Your task to perform on an android device: uninstall "Pluto TV - Live TV and Movies" Image 0: 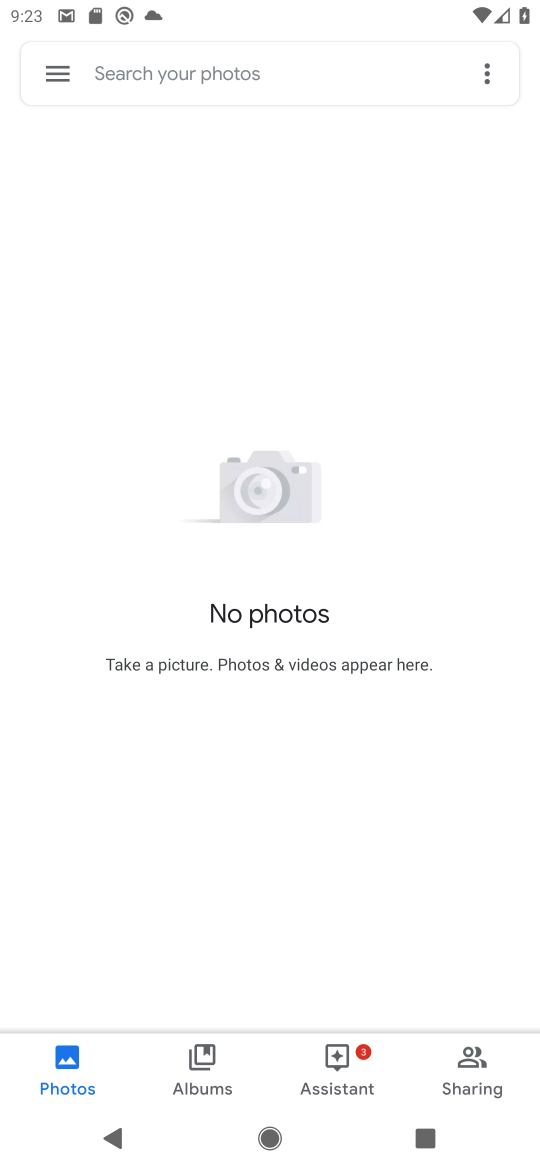
Step 0: press home button
Your task to perform on an android device: uninstall "Pluto TV - Live TV and Movies" Image 1: 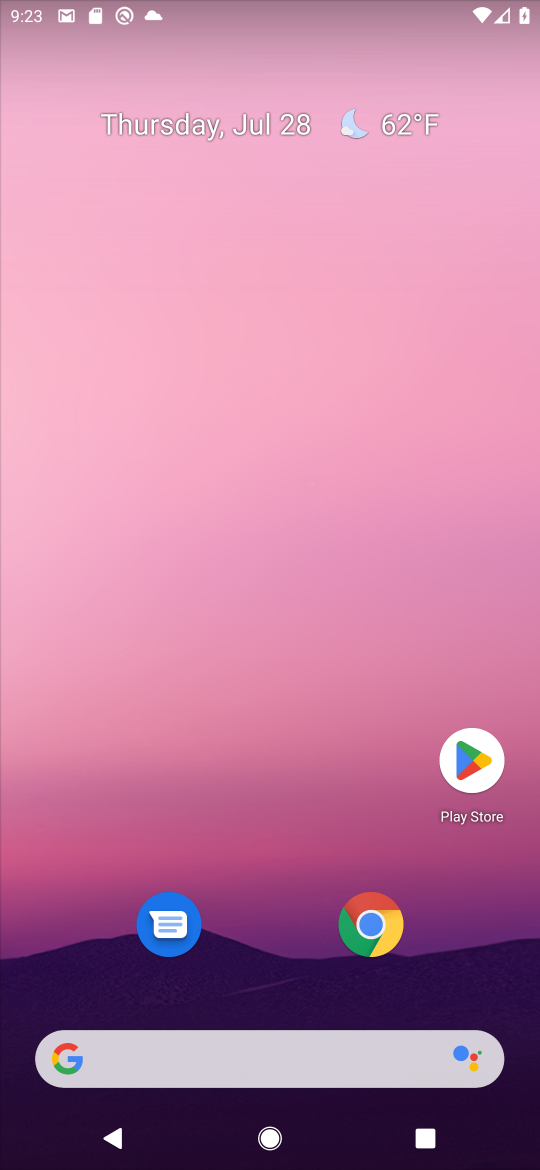
Step 1: click (474, 757)
Your task to perform on an android device: uninstall "Pluto TV - Live TV and Movies" Image 2: 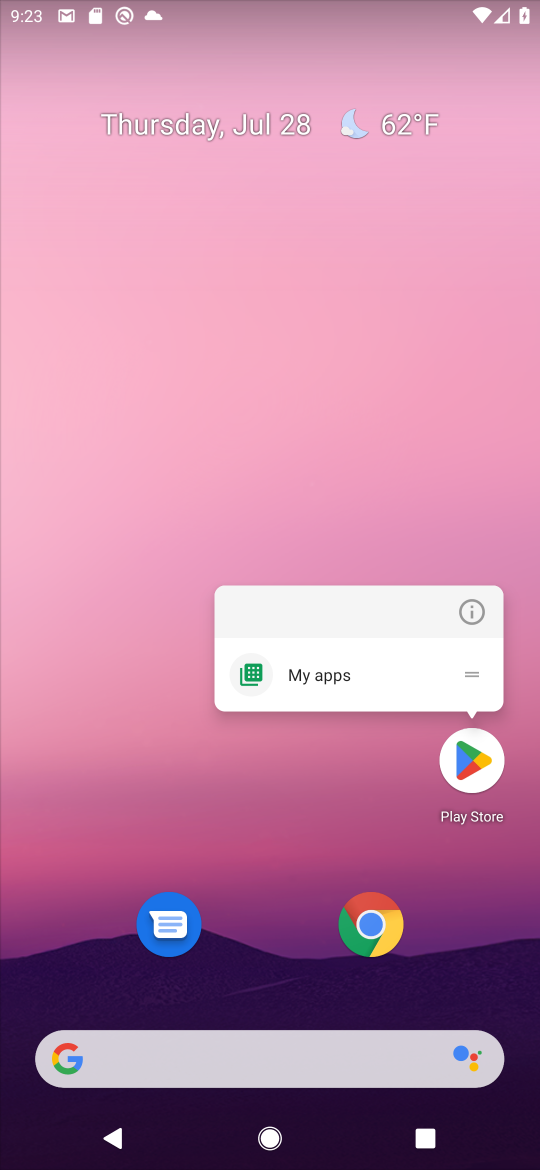
Step 2: click (474, 754)
Your task to perform on an android device: uninstall "Pluto TV - Live TV and Movies" Image 3: 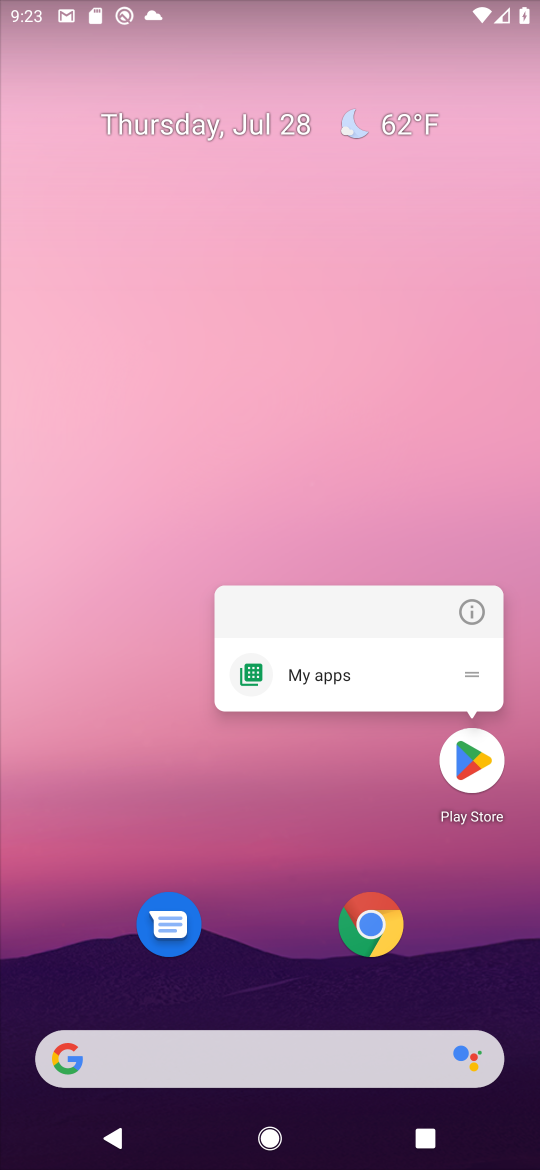
Step 3: click (474, 758)
Your task to perform on an android device: uninstall "Pluto TV - Live TV and Movies" Image 4: 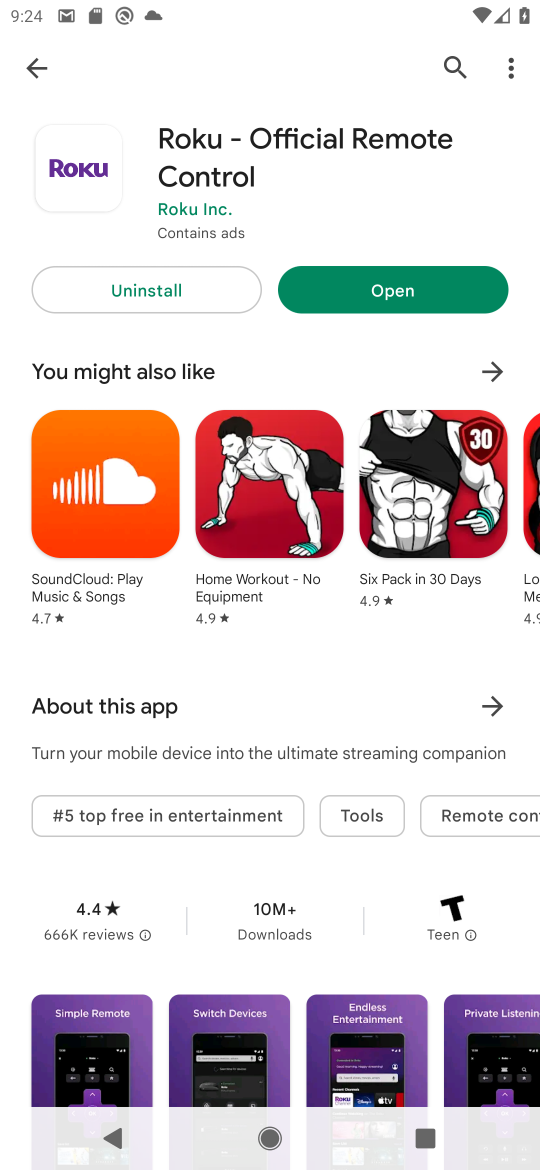
Step 4: click (452, 60)
Your task to perform on an android device: uninstall "Pluto TV - Live TV and Movies" Image 5: 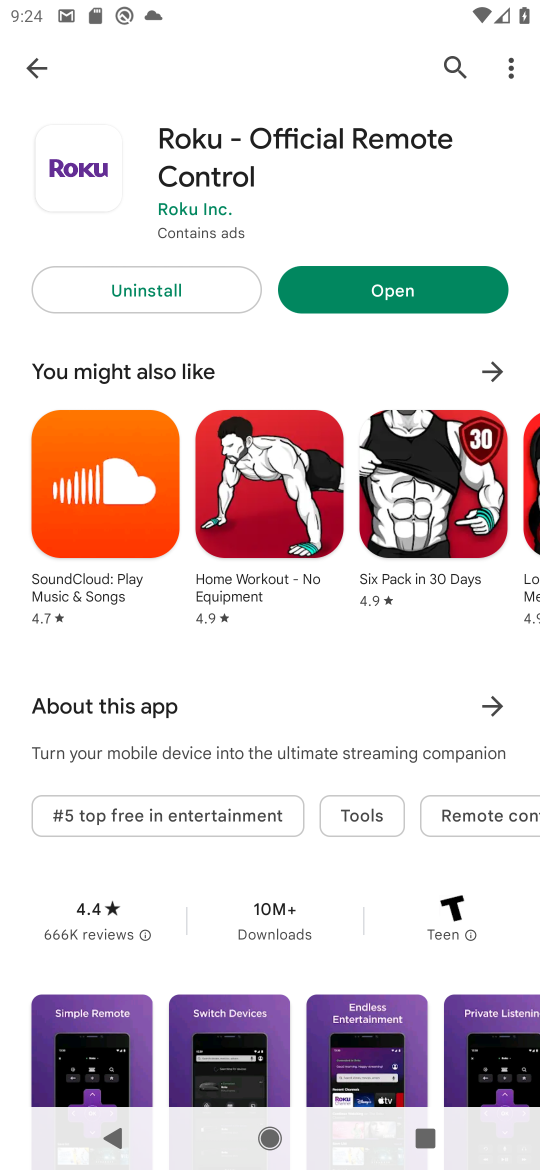
Step 5: click (439, 63)
Your task to perform on an android device: uninstall "Pluto TV - Live TV and Movies" Image 6: 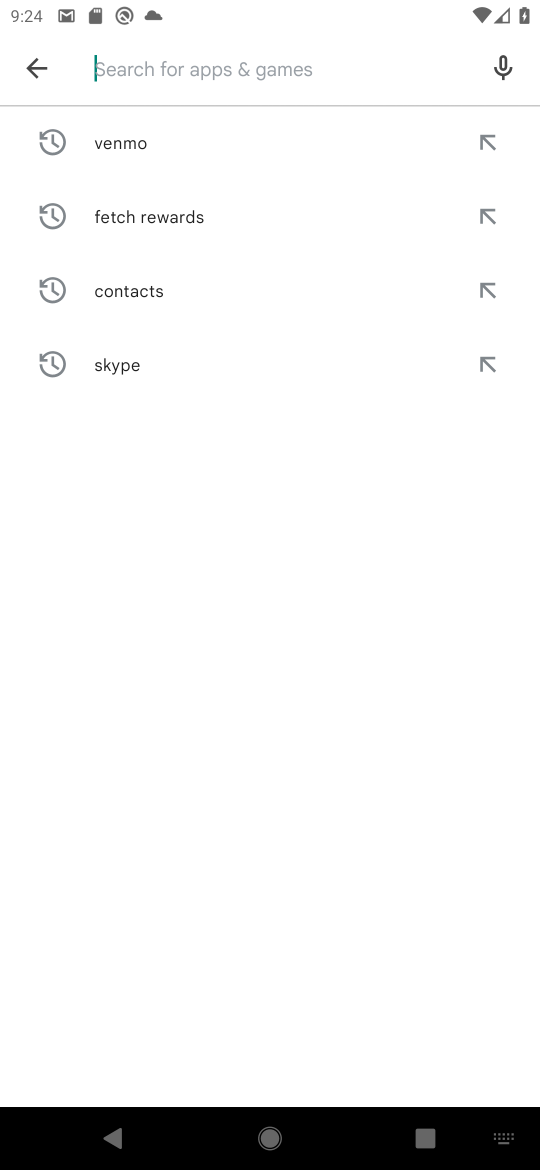
Step 6: type "Pluto TV - Live TV and Movies"
Your task to perform on an android device: uninstall "Pluto TV - Live TV and Movies" Image 7: 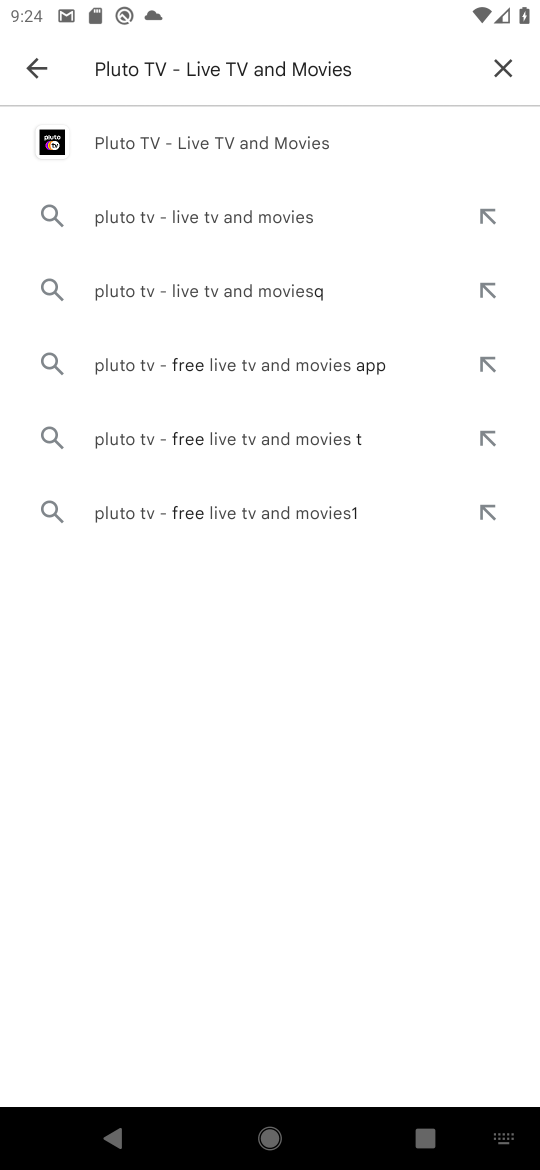
Step 7: click (270, 144)
Your task to perform on an android device: uninstall "Pluto TV - Live TV and Movies" Image 8: 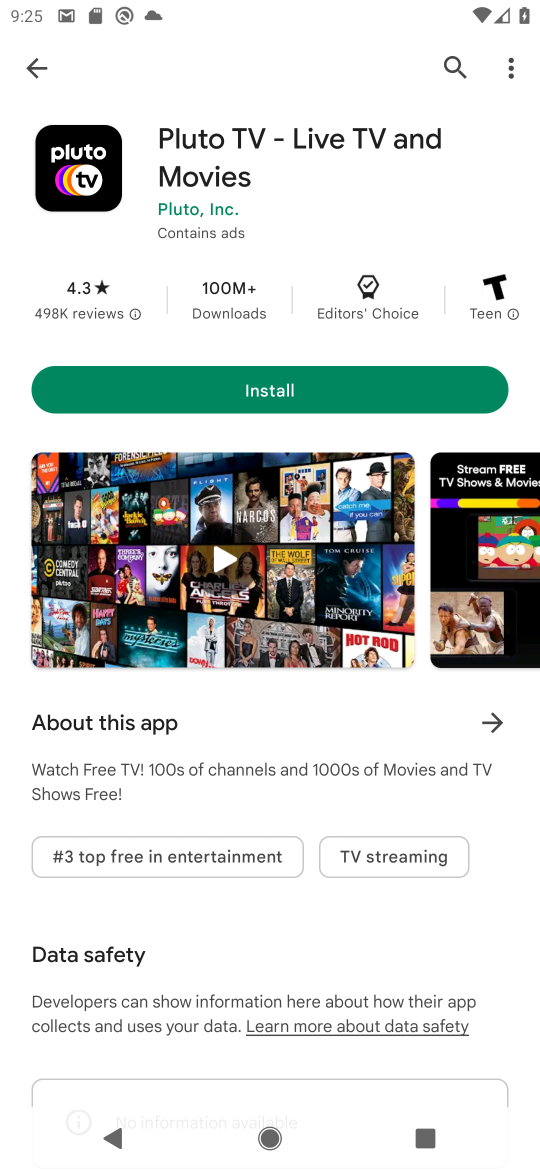
Step 8: task complete